Your task to perform on an android device: turn on priority inbox in the gmail app Image 0: 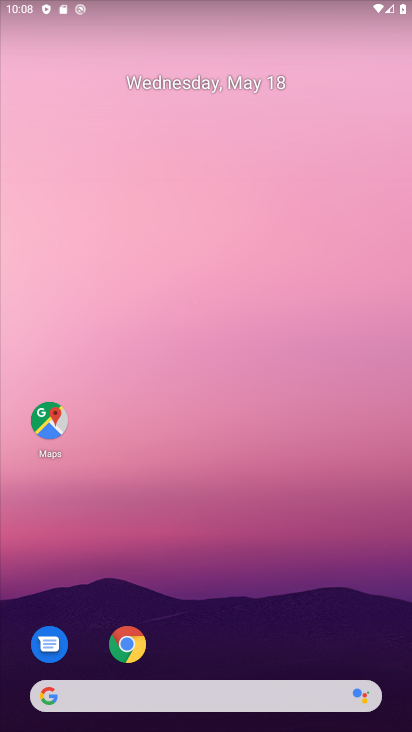
Step 0: drag from (340, 623) to (306, 38)
Your task to perform on an android device: turn on priority inbox in the gmail app Image 1: 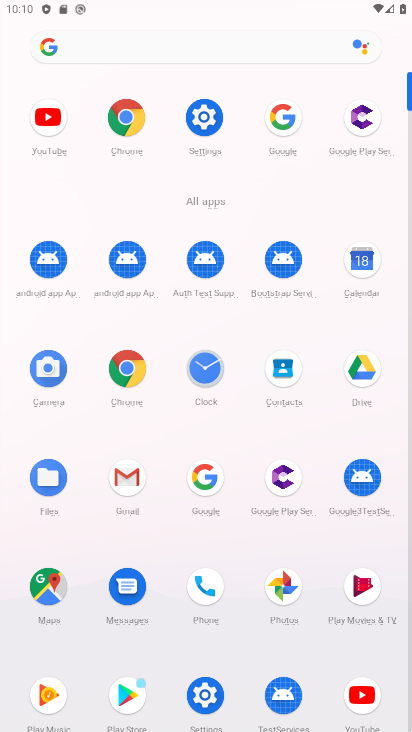
Step 1: click (143, 478)
Your task to perform on an android device: turn on priority inbox in the gmail app Image 2: 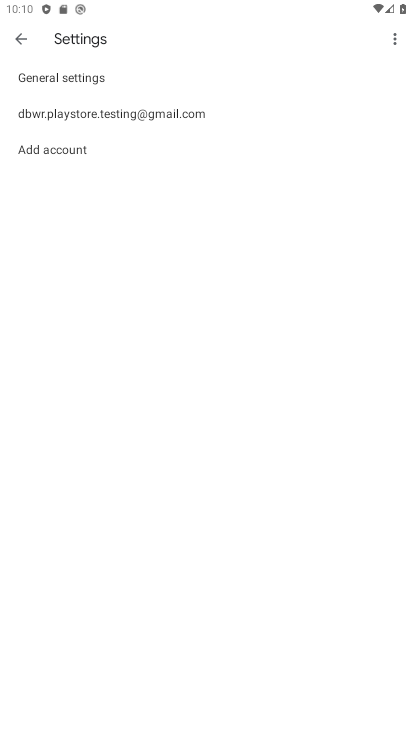
Step 2: click (160, 104)
Your task to perform on an android device: turn on priority inbox in the gmail app Image 3: 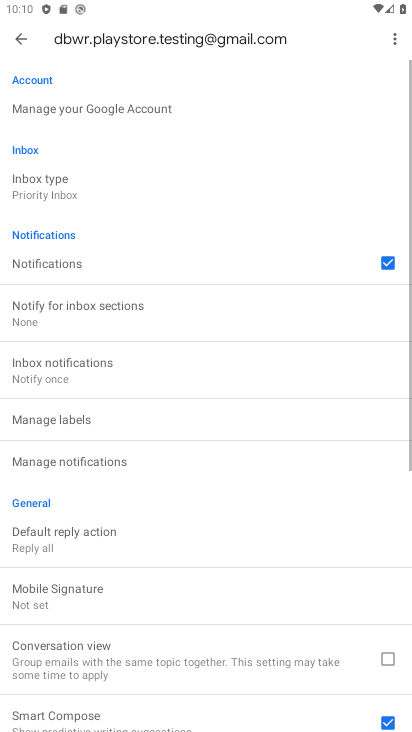
Step 3: click (71, 184)
Your task to perform on an android device: turn on priority inbox in the gmail app Image 4: 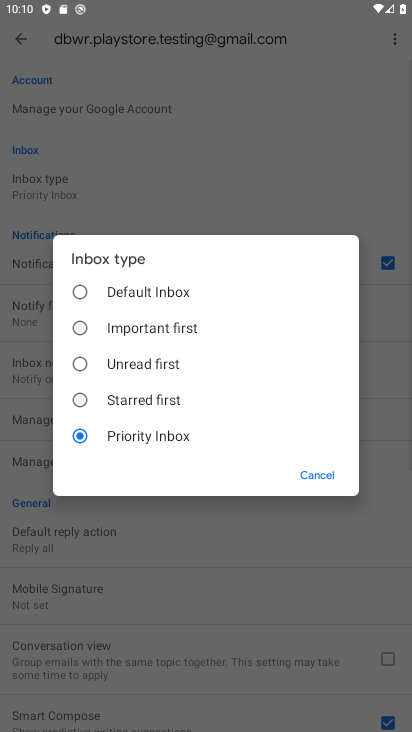
Step 4: task complete